Your task to perform on an android device: read, delete, or share a saved page in the chrome app Image 0: 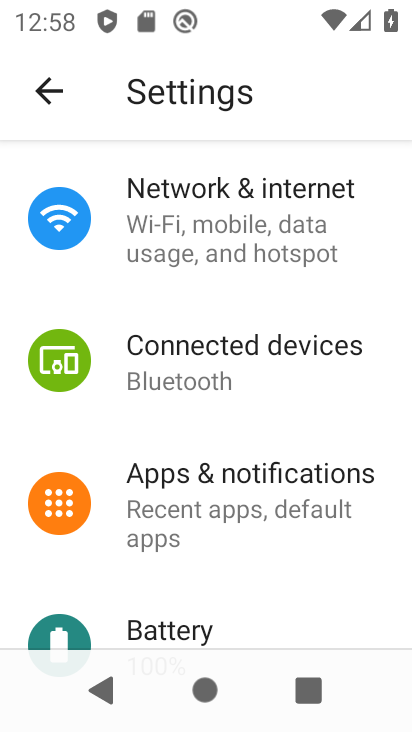
Step 0: drag from (233, 581) to (253, 240)
Your task to perform on an android device: read, delete, or share a saved page in the chrome app Image 1: 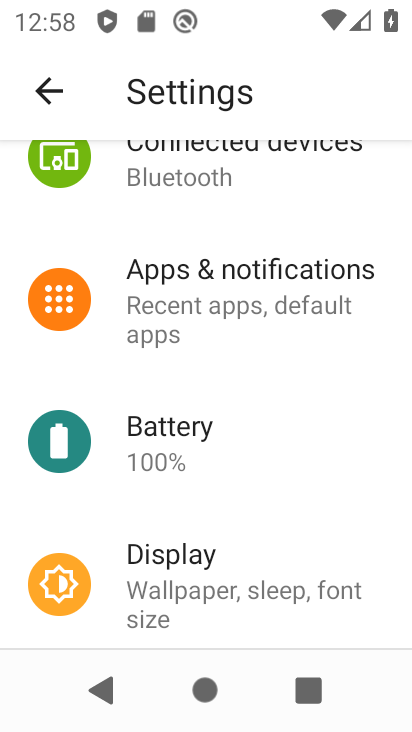
Step 1: drag from (271, 560) to (278, 237)
Your task to perform on an android device: read, delete, or share a saved page in the chrome app Image 2: 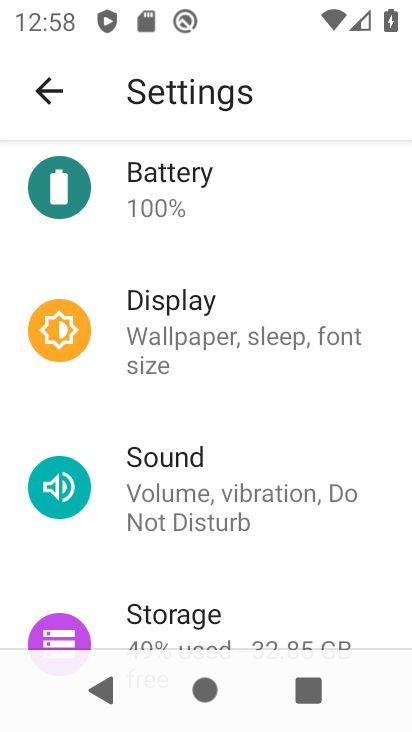
Step 2: drag from (285, 570) to (276, 252)
Your task to perform on an android device: read, delete, or share a saved page in the chrome app Image 3: 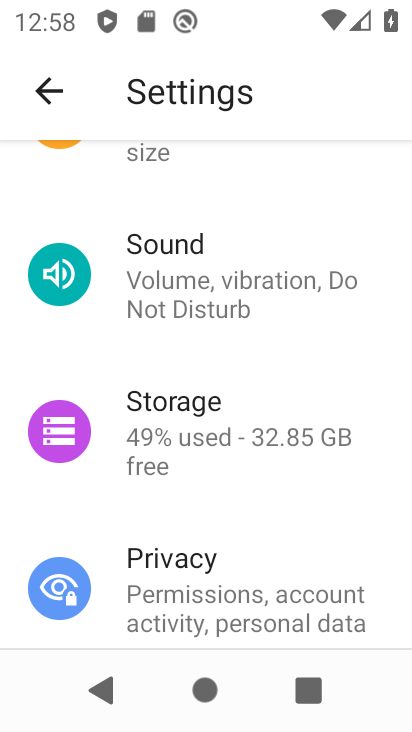
Step 3: press home button
Your task to perform on an android device: read, delete, or share a saved page in the chrome app Image 4: 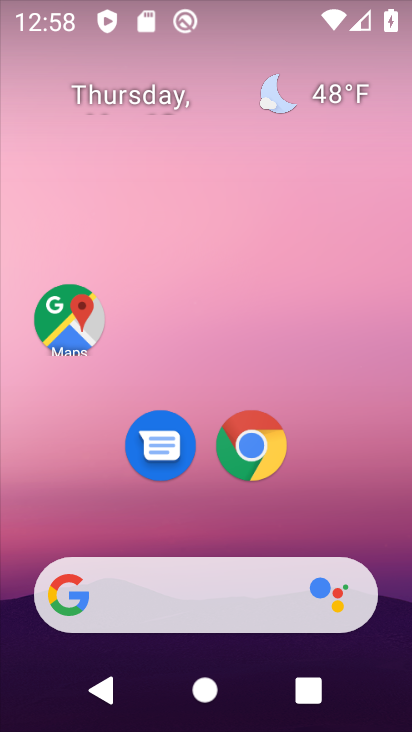
Step 4: click (259, 453)
Your task to perform on an android device: read, delete, or share a saved page in the chrome app Image 5: 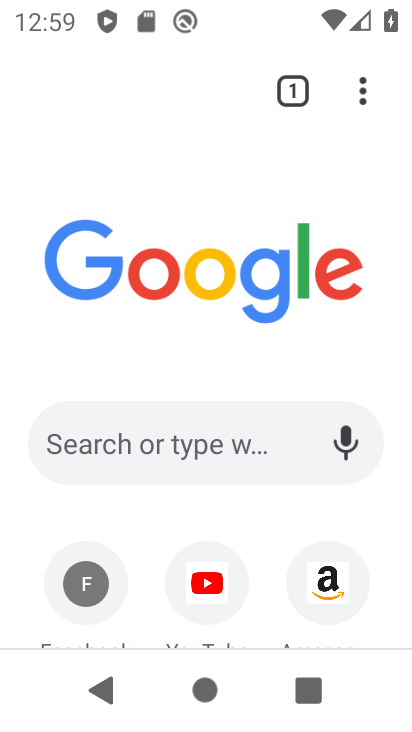
Step 5: click (372, 90)
Your task to perform on an android device: read, delete, or share a saved page in the chrome app Image 6: 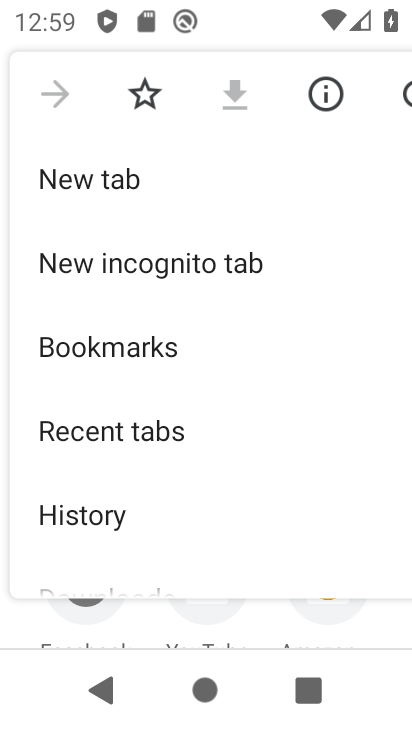
Step 6: drag from (175, 566) to (179, 228)
Your task to perform on an android device: read, delete, or share a saved page in the chrome app Image 7: 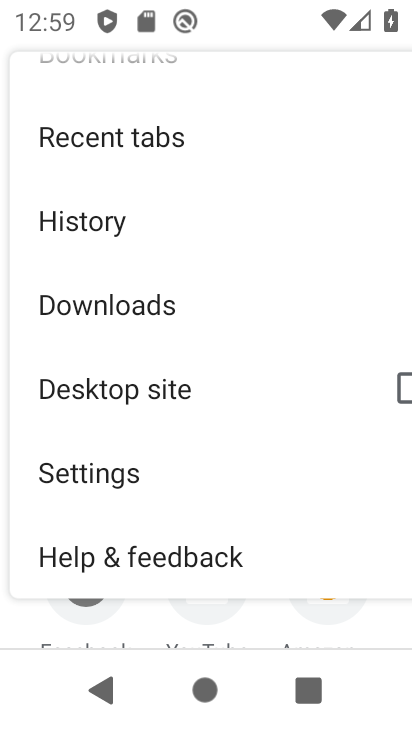
Step 7: click (120, 319)
Your task to perform on an android device: read, delete, or share a saved page in the chrome app Image 8: 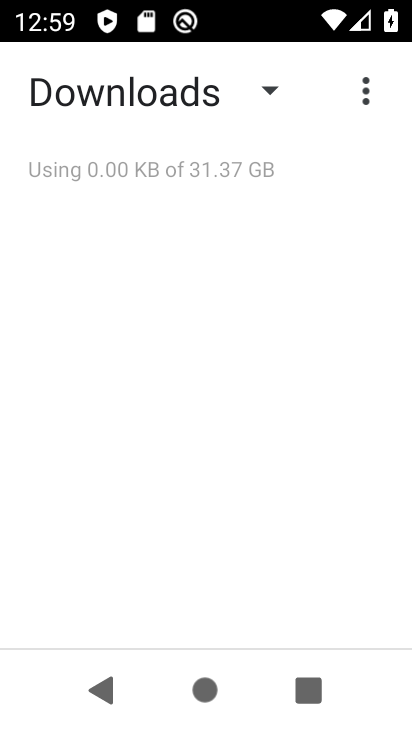
Step 8: click (265, 95)
Your task to perform on an android device: read, delete, or share a saved page in the chrome app Image 9: 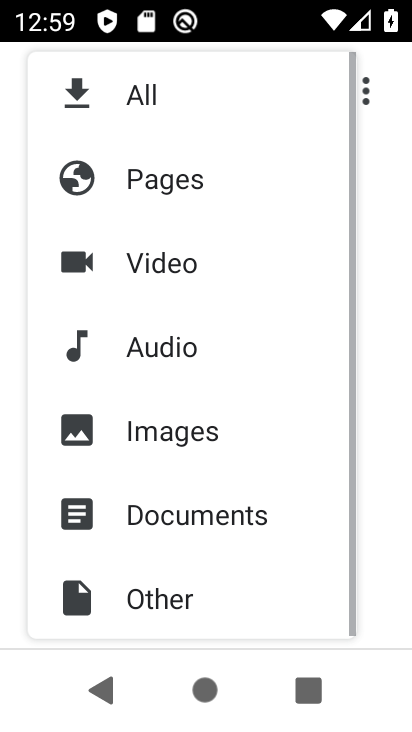
Step 9: click (147, 184)
Your task to perform on an android device: read, delete, or share a saved page in the chrome app Image 10: 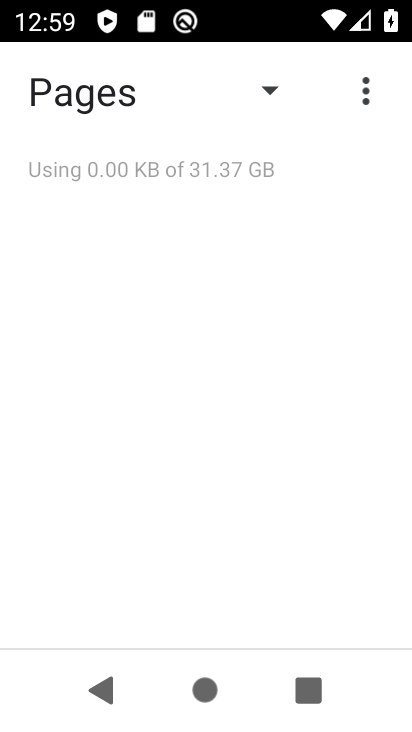
Step 10: task complete